Your task to perform on an android device: turn on the 12-hour format for clock Image 0: 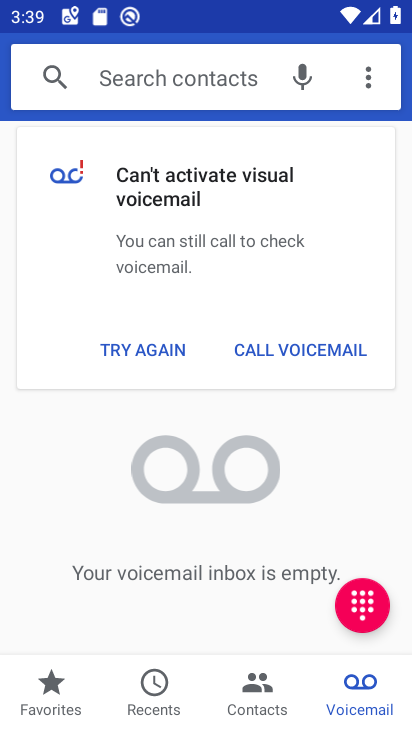
Step 0: press home button
Your task to perform on an android device: turn on the 12-hour format for clock Image 1: 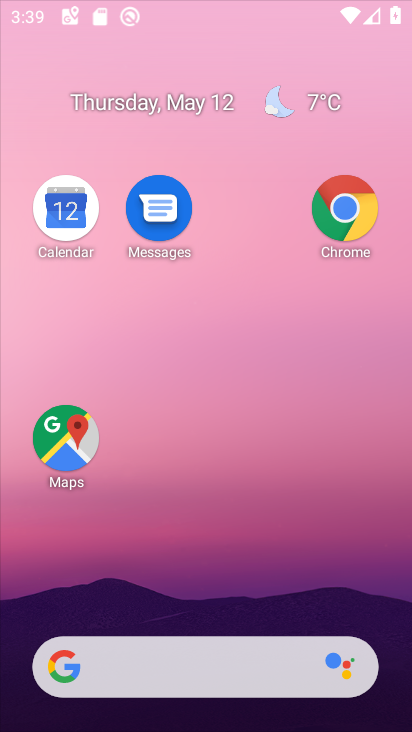
Step 1: drag from (155, 578) to (148, 288)
Your task to perform on an android device: turn on the 12-hour format for clock Image 2: 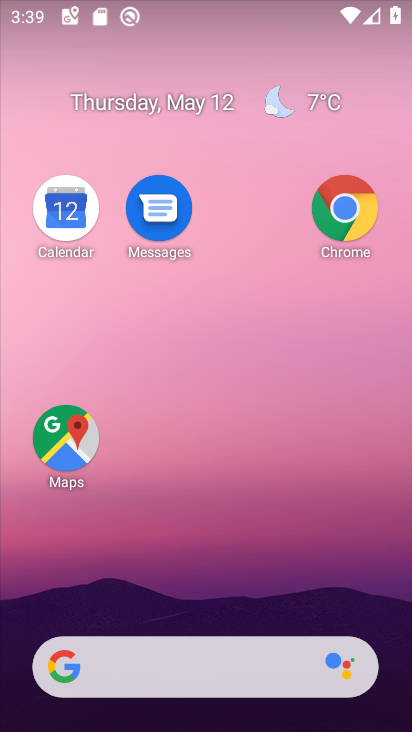
Step 2: drag from (189, 587) to (160, 7)
Your task to perform on an android device: turn on the 12-hour format for clock Image 3: 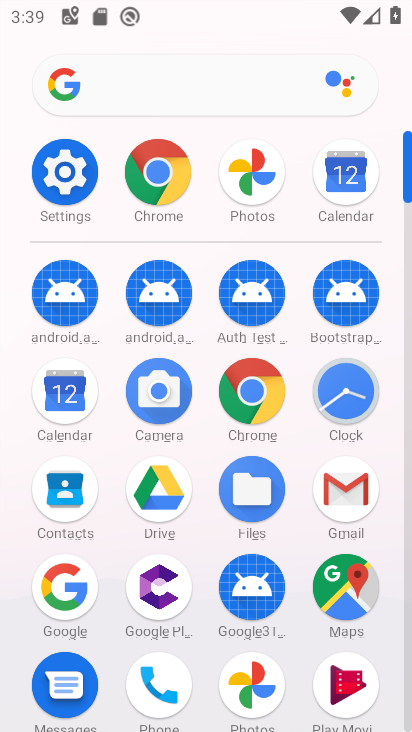
Step 3: click (330, 398)
Your task to perform on an android device: turn on the 12-hour format for clock Image 4: 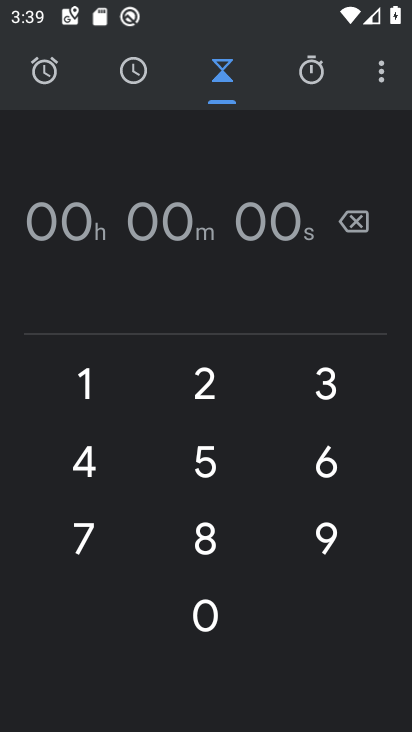
Step 4: click (389, 73)
Your task to perform on an android device: turn on the 12-hour format for clock Image 5: 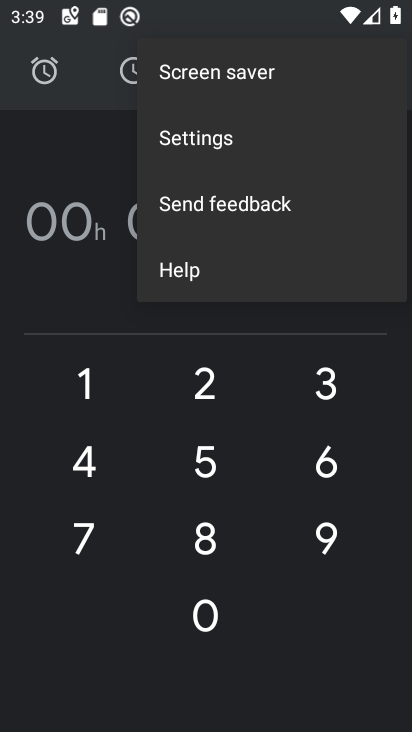
Step 5: click (264, 149)
Your task to perform on an android device: turn on the 12-hour format for clock Image 6: 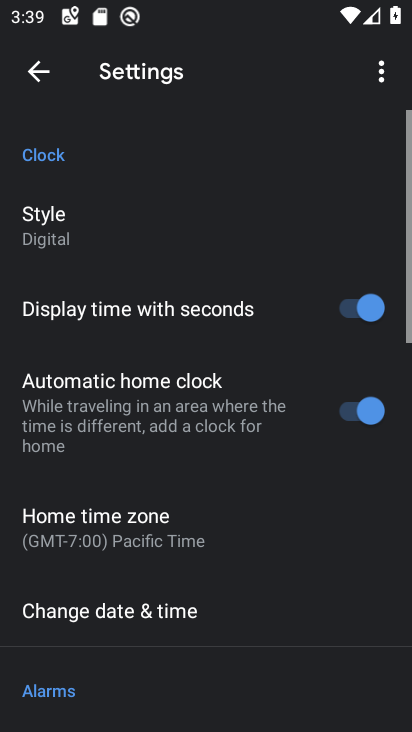
Step 6: drag from (196, 550) to (271, 147)
Your task to perform on an android device: turn on the 12-hour format for clock Image 7: 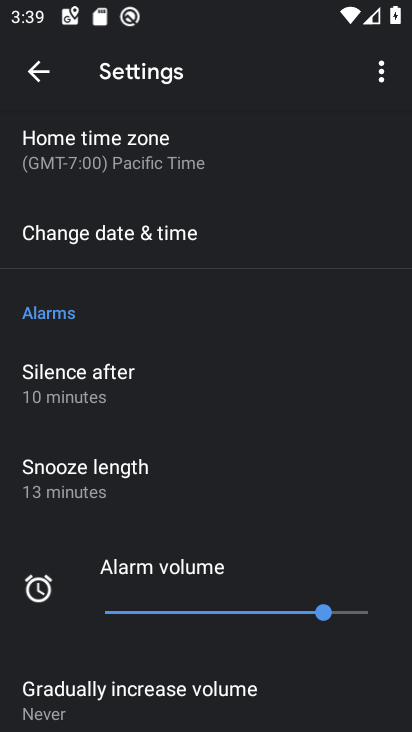
Step 7: click (181, 247)
Your task to perform on an android device: turn on the 12-hour format for clock Image 8: 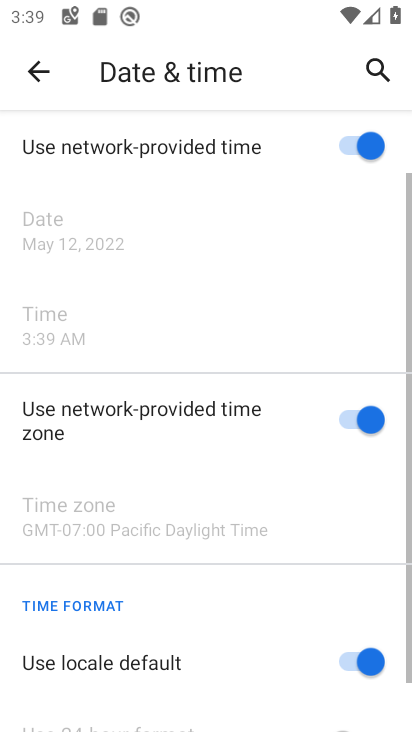
Step 8: task complete